Your task to perform on an android device: change your default location settings in chrome Image 0: 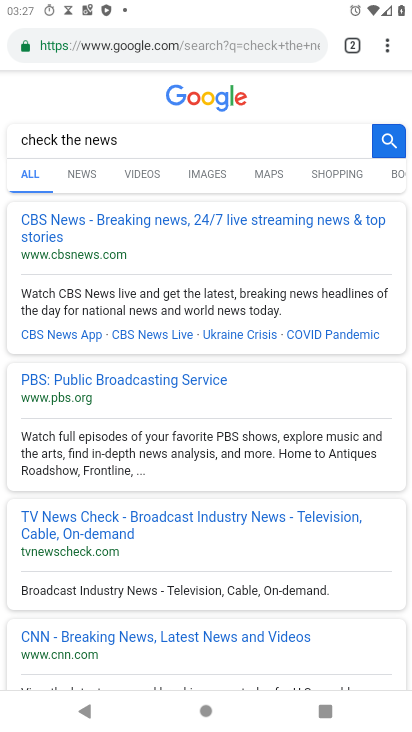
Step 0: press home button
Your task to perform on an android device: change your default location settings in chrome Image 1: 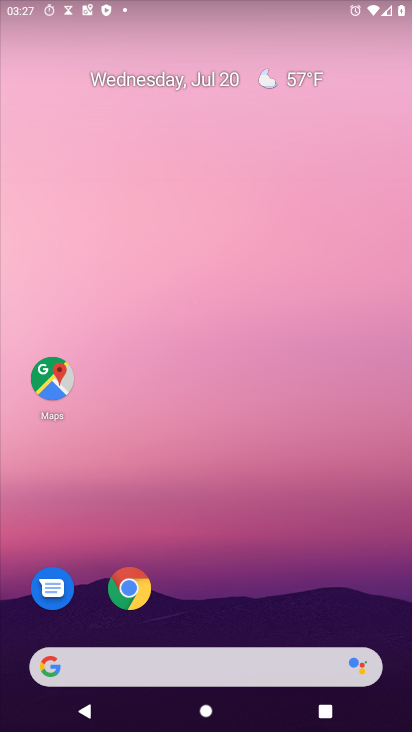
Step 1: drag from (261, 571) to (354, 2)
Your task to perform on an android device: change your default location settings in chrome Image 2: 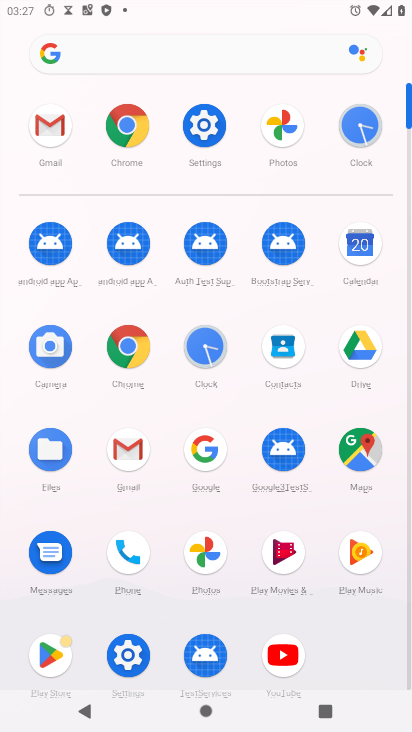
Step 2: click (118, 343)
Your task to perform on an android device: change your default location settings in chrome Image 3: 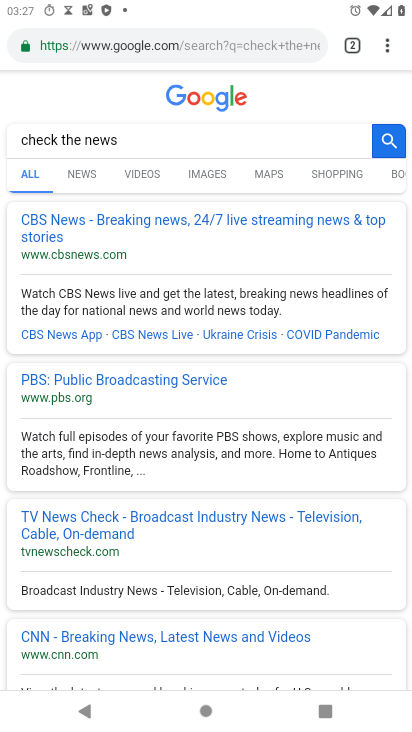
Step 3: drag from (377, 40) to (239, 508)
Your task to perform on an android device: change your default location settings in chrome Image 4: 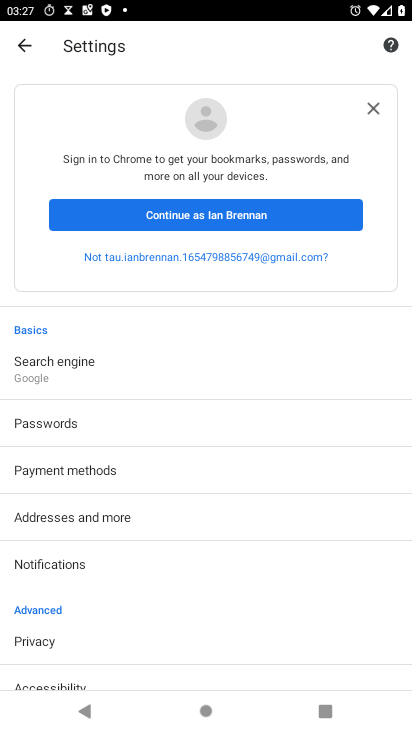
Step 4: drag from (117, 622) to (135, 137)
Your task to perform on an android device: change your default location settings in chrome Image 5: 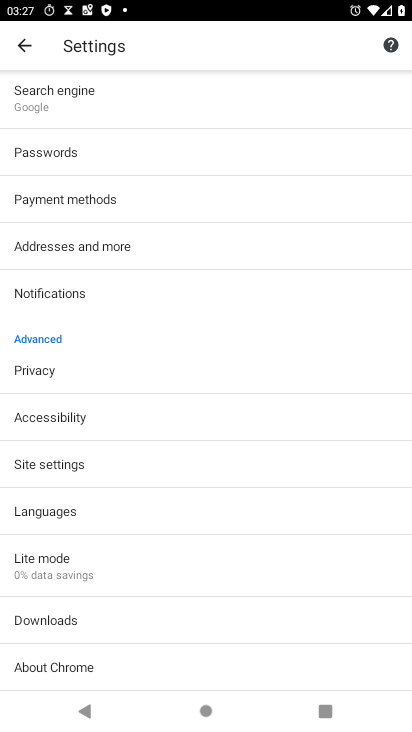
Step 5: click (72, 469)
Your task to perform on an android device: change your default location settings in chrome Image 6: 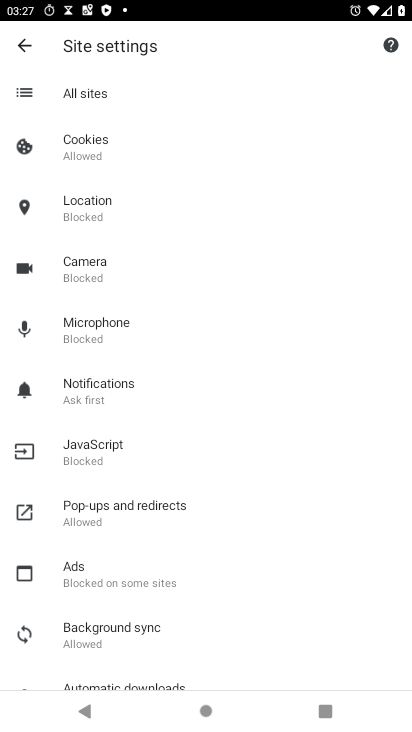
Step 6: click (80, 194)
Your task to perform on an android device: change your default location settings in chrome Image 7: 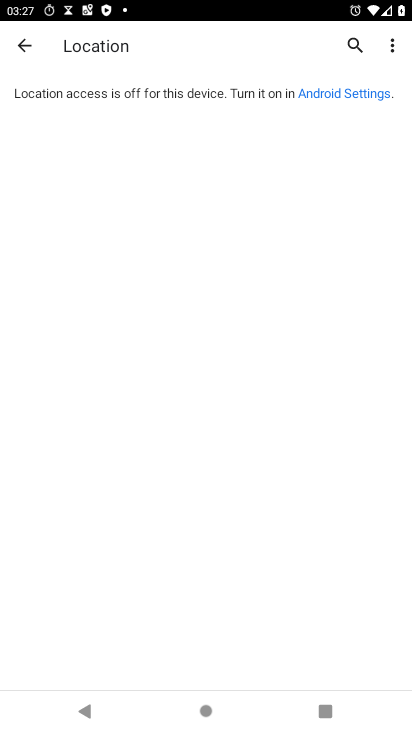
Step 7: task complete